Your task to perform on an android device: Open the Play Movies app and select the watchlist tab. Image 0: 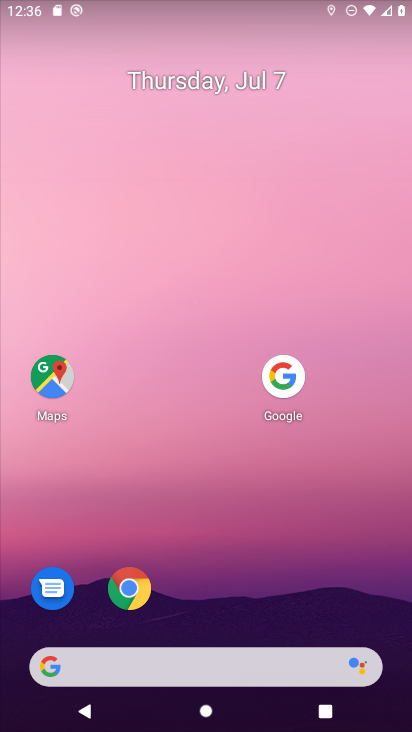
Step 0: drag from (251, 671) to (410, 106)
Your task to perform on an android device: Open the Play Movies app and select the watchlist tab. Image 1: 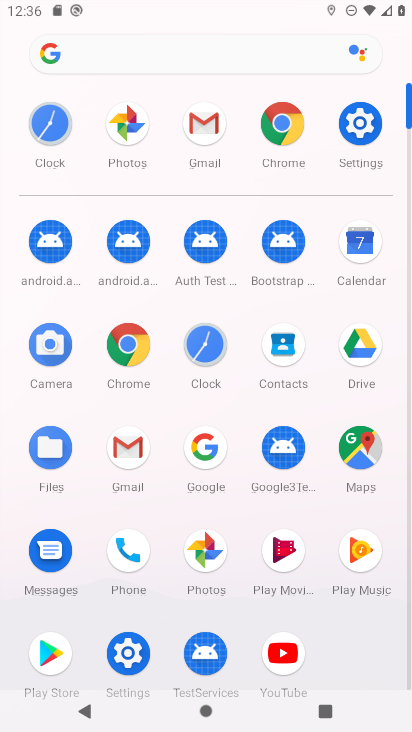
Step 1: click (284, 549)
Your task to perform on an android device: Open the Play Movies app and select the watchlist tab. Image 2: 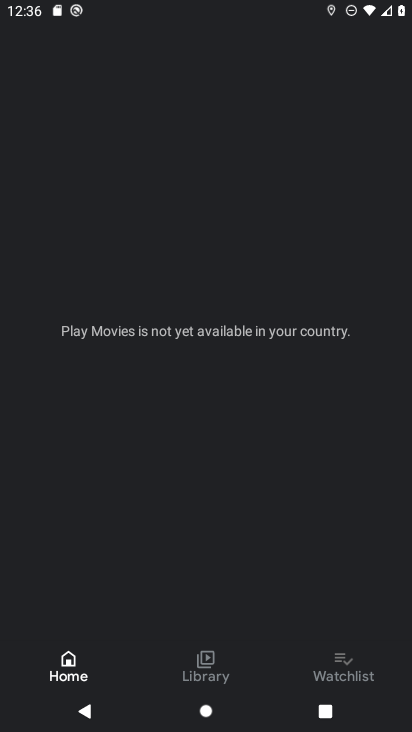
Step 2: click (338, 674)
Your task to perform on an android device: Open the Play Movies app and select the watchlist tab. Image 3: 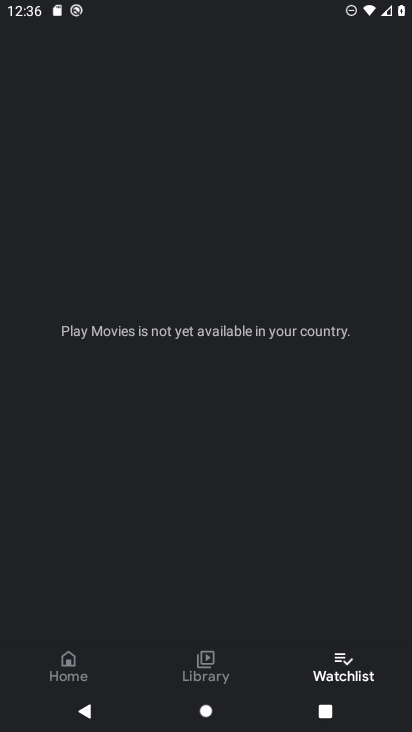
Step 3: task complete